Your task to perform on an android device: install app "Paramount+ | Peak Streaming" Image 0: 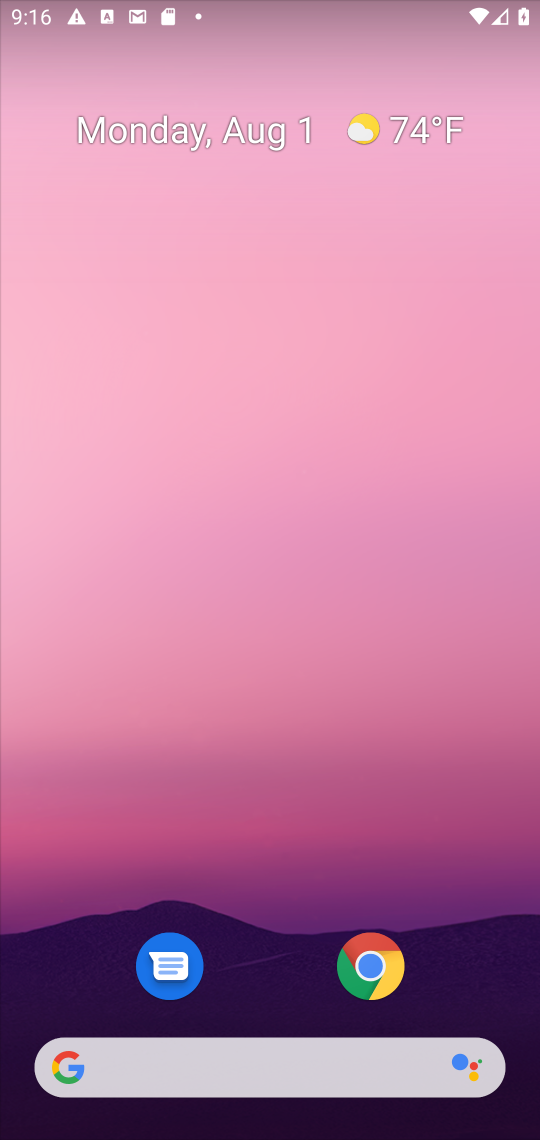
Step 0: drag from (513, 1062) to (421, 214)
Your task to perform on an android device: install app "Paramount+ | Peak Streaming" Image 1: 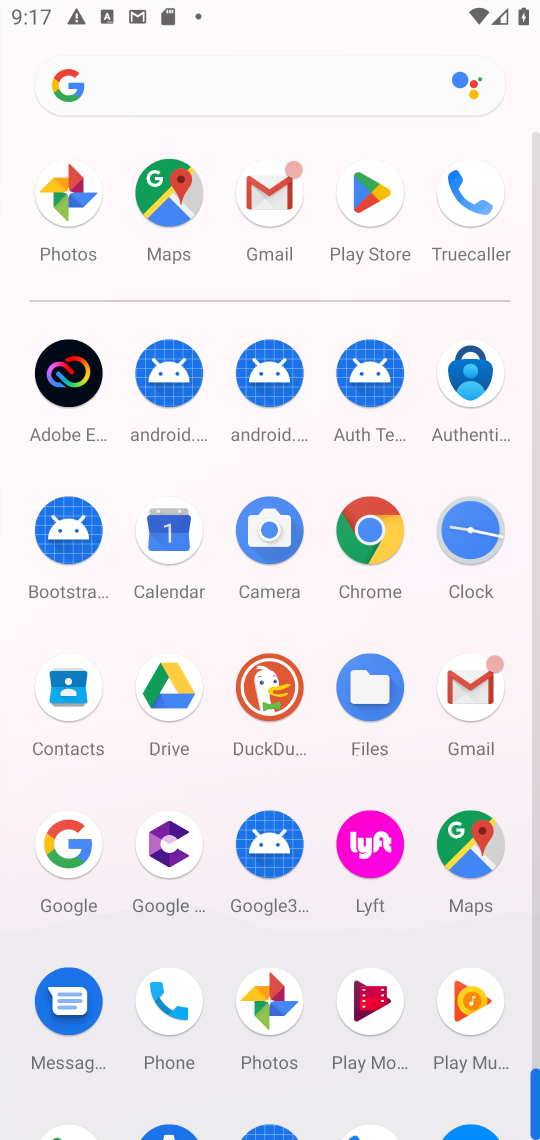
Step 1: click (376, 194)
Your task to perform on an android device: install app "Paramount+ | Peak Streaming" Image 2: 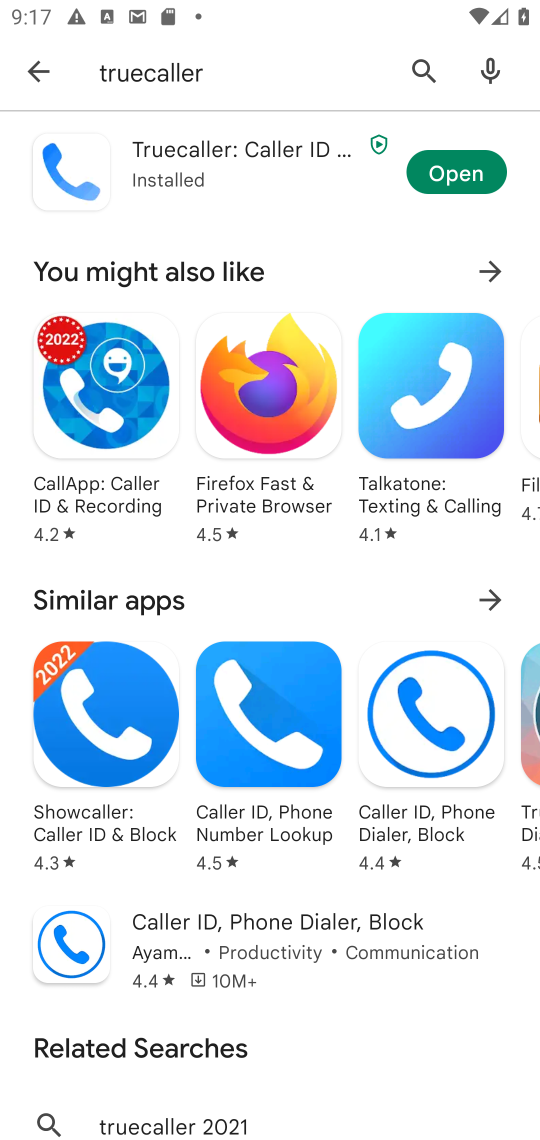
Step 2: click (426, 65)
Your task to perform on an android device: install app "Paramount+ | Peak Streaming" Image 3: 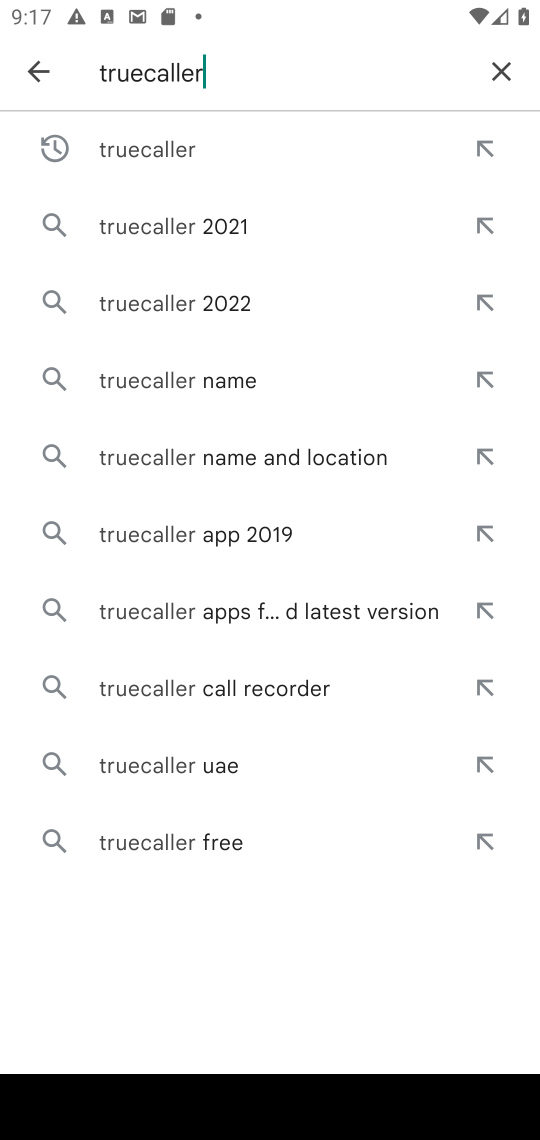
Step 3: click (505, 63)
Your task to perform on an android device: install app "Paramount+ | Peak Streaming" Image 4: 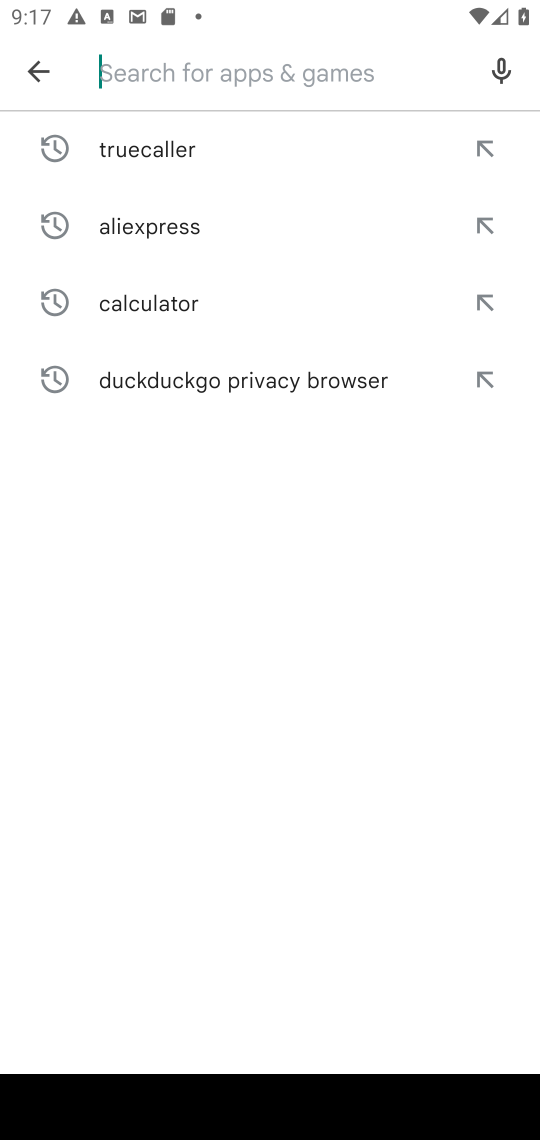
Step 4: type "Paramount+ | Peak Streaming"
Your task to perform on an android device: install app "Paramount+ | Peak Streaming" Image 5: 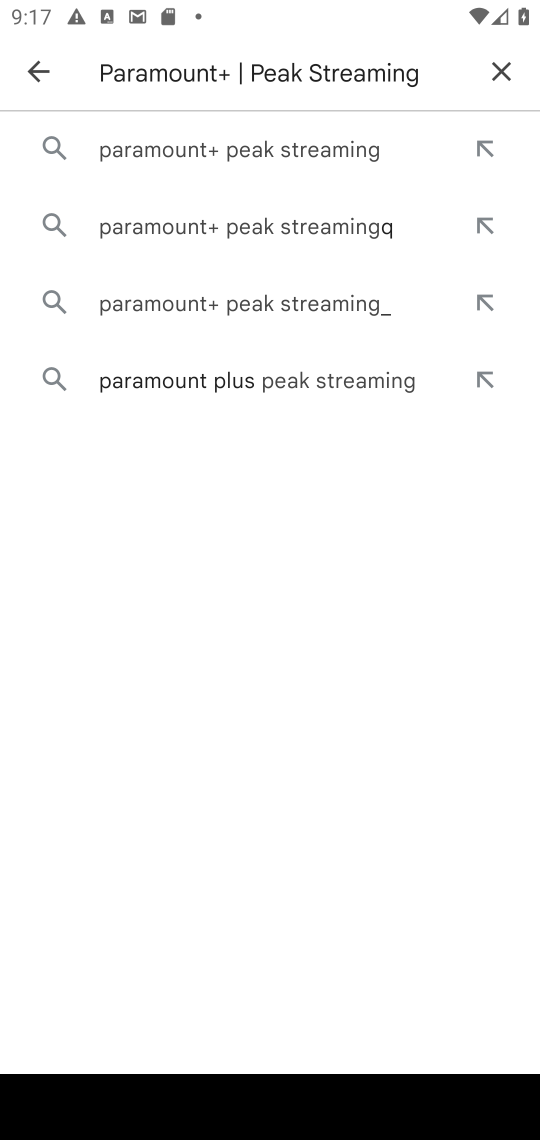
Step 5: click (220, 144)
Your task to perform on an android device: install app "Paramount+ | Peak Streaming" Image 6: 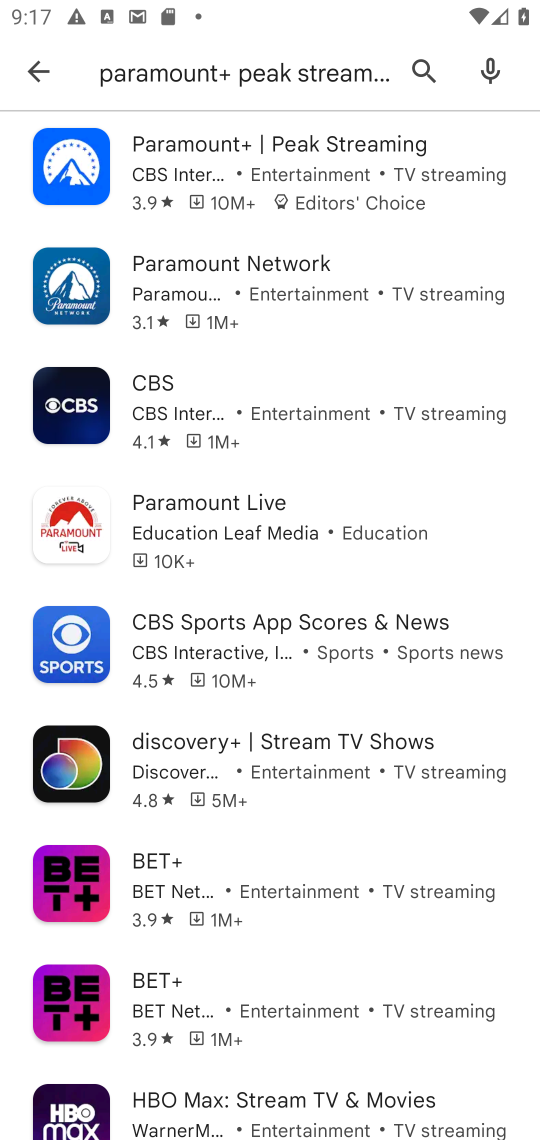
Step 6: click (104, 146)
Your task to perform on an android device: install app "Paramount+ | Peak Streaming" Image 7: 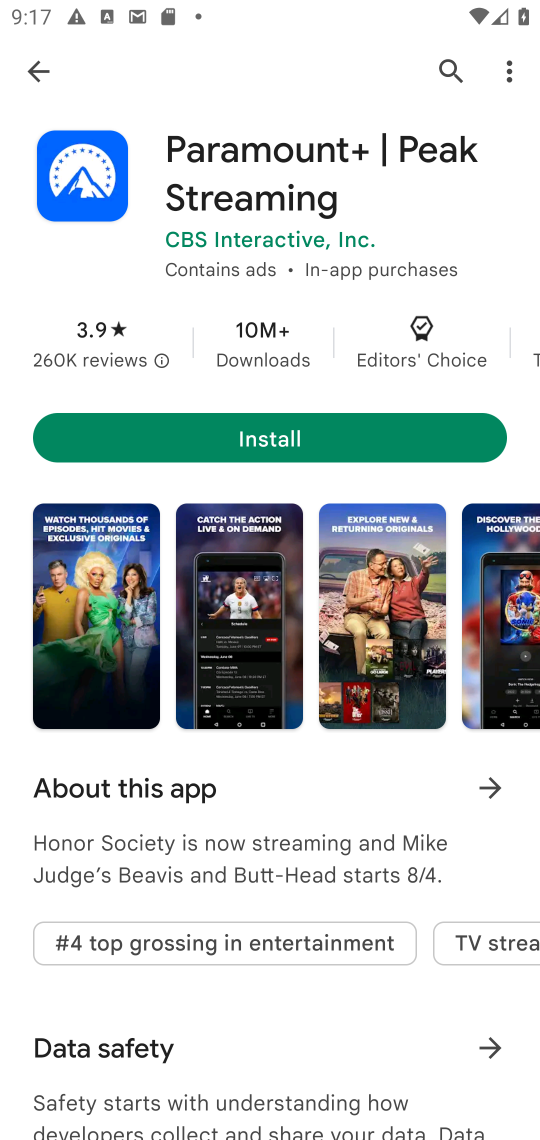
Step 7: click (214, 445)
Your task to perform on an android device: install app "Paramount+ | Peak Streaming" Image 8: 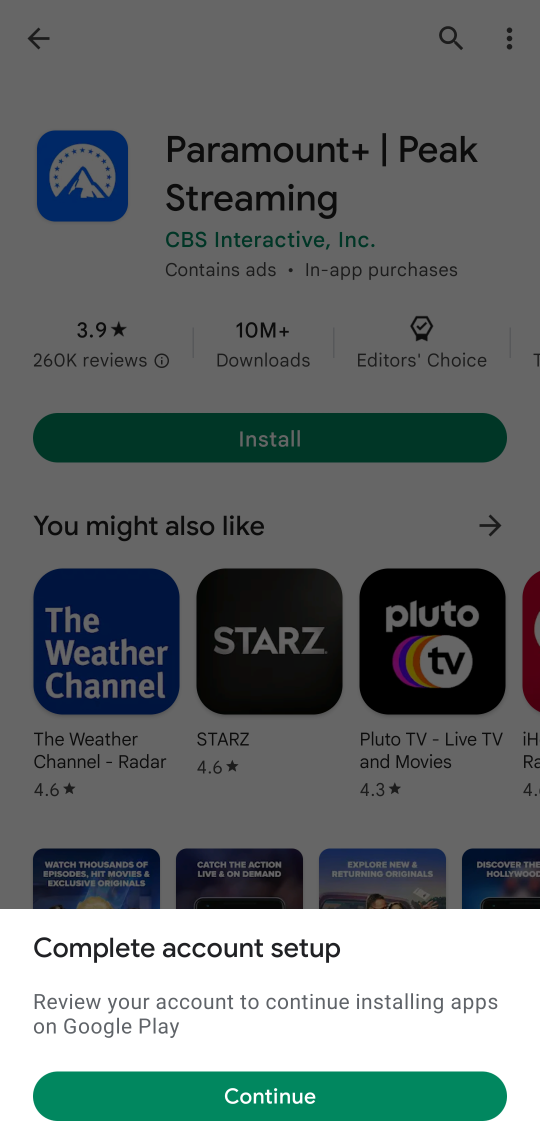
Step 8: click (306, 1091)
Your task to perform on an android device: install app "Paramount+ | Peak Streaming" Image 9: 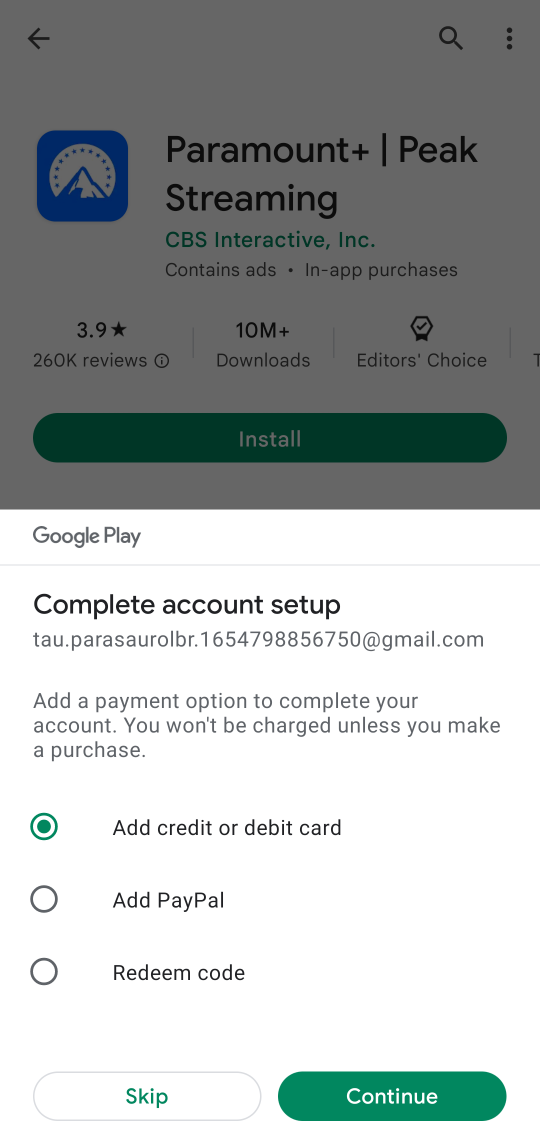
Step 9: click (414, 1091)
Your task to perform on an android device: install app "Paramount+ | Peak Streaming" Image 10: 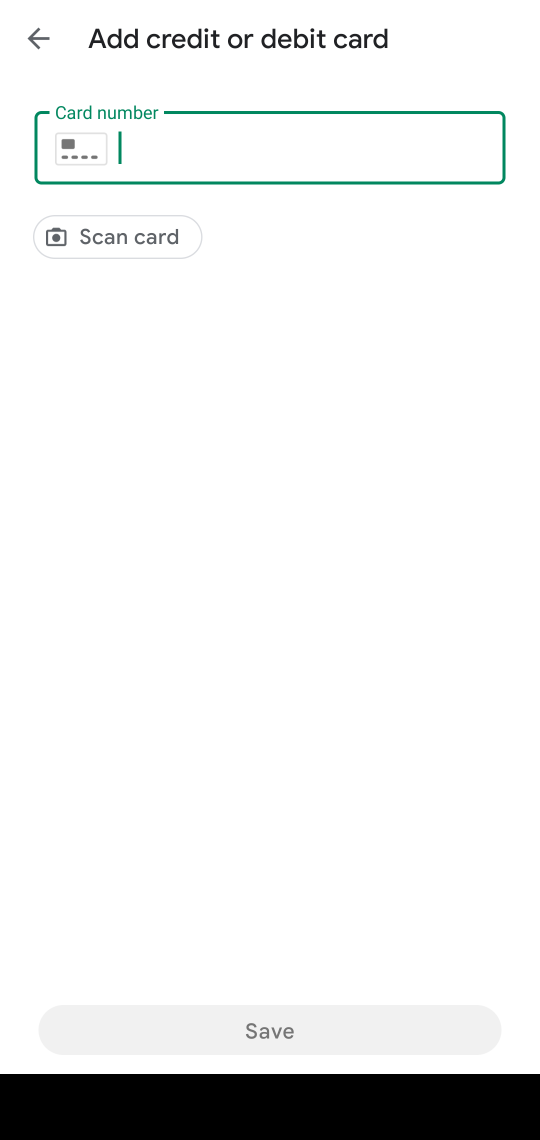
Step 10: click (39, 41)
Your task to perform on an android device: install app "Paramount+ | Peak Streaming" Image 11: 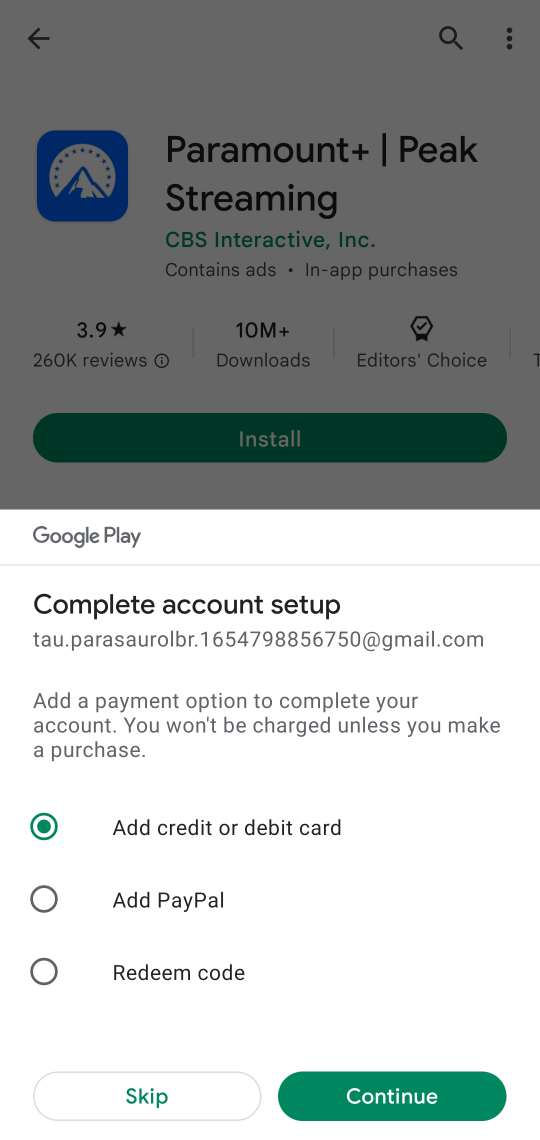
Step 11: task complete